Your task to perform on an android device: Show the shopping cart on ebay. Search for "razer kraken" on ebay, select the first entry, and add it to the cart. Image 0: 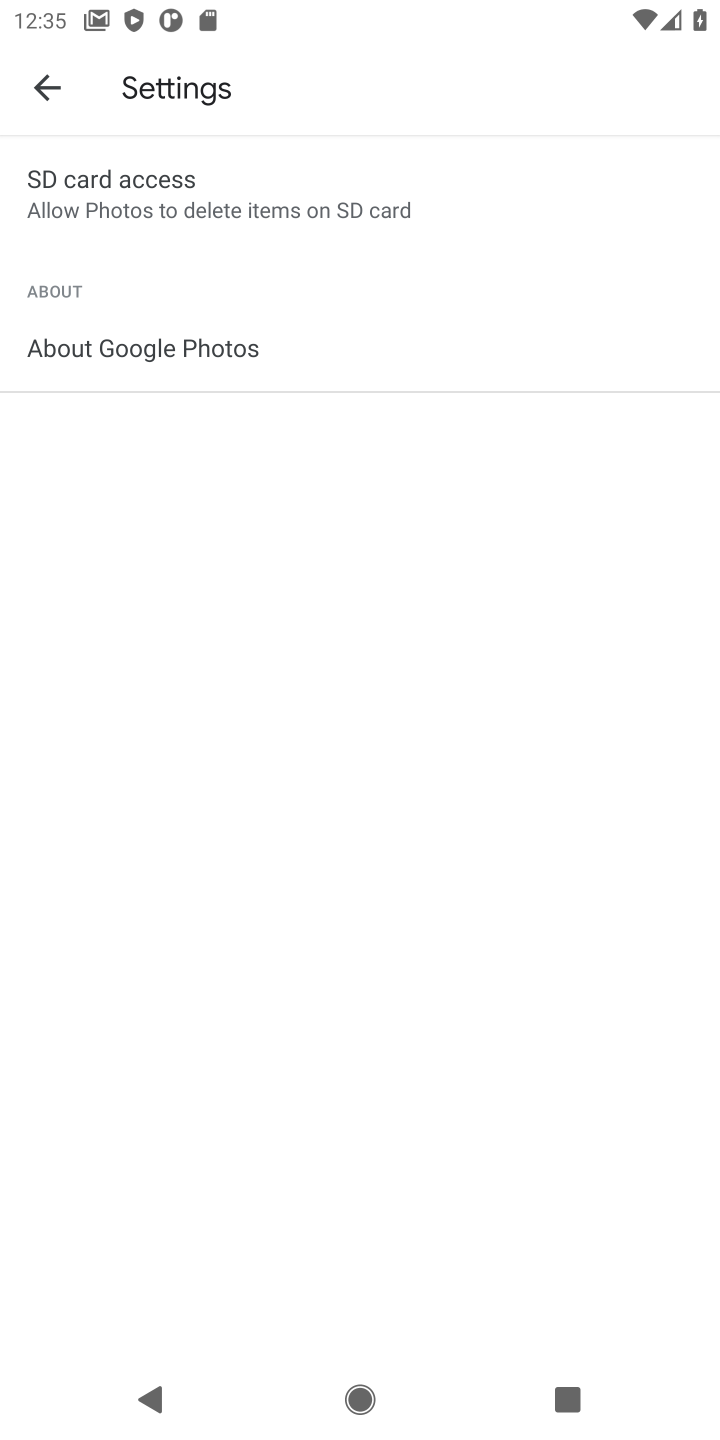
Step 0: press home button
Your task to perform on an android device: Show the shopping cart on ebay. Search for "razer kraken" on ebay, select the first entry, and add it to the cart. Image 1: 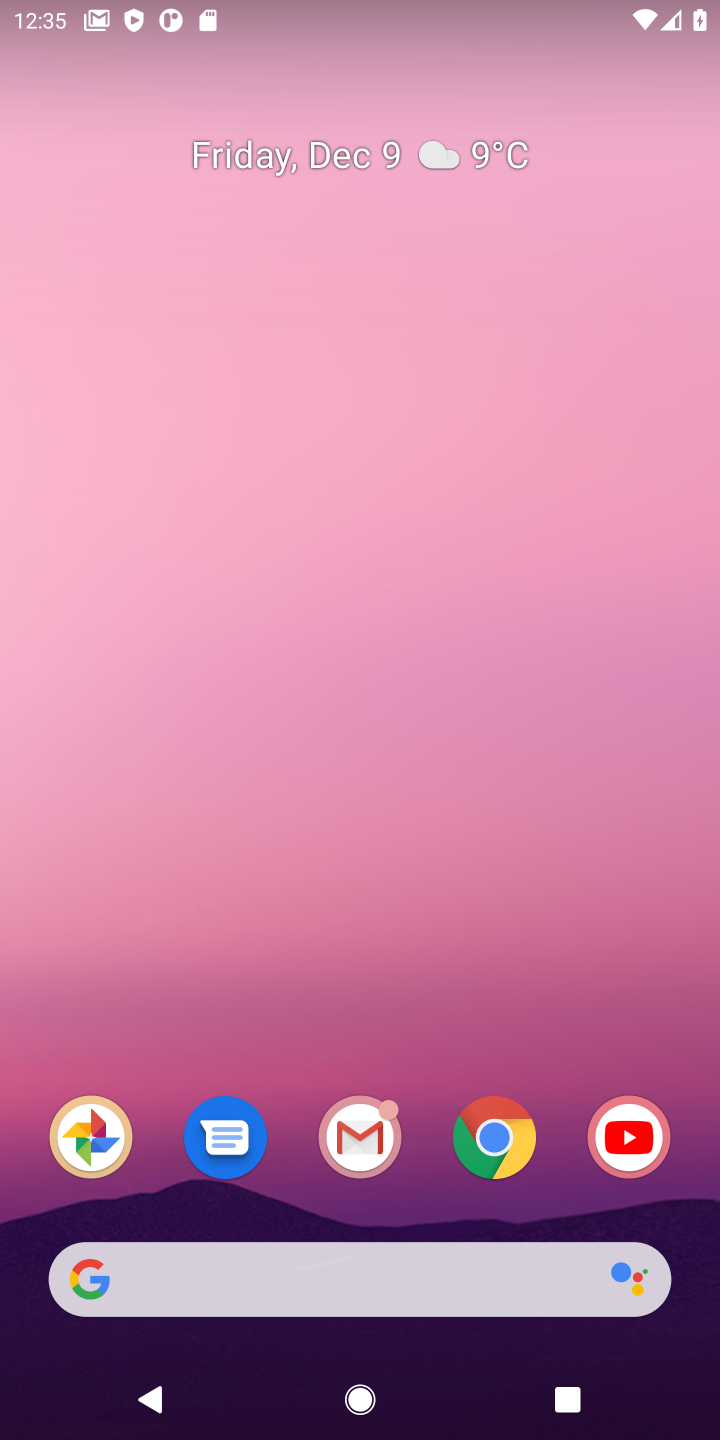
Step 1: click (283, 1283)
Your task to perform on an android device: Show the shopping cart on ebay. Search for "razer kraken" on ebay, select the first entry, and add it to the cart. Image 2: 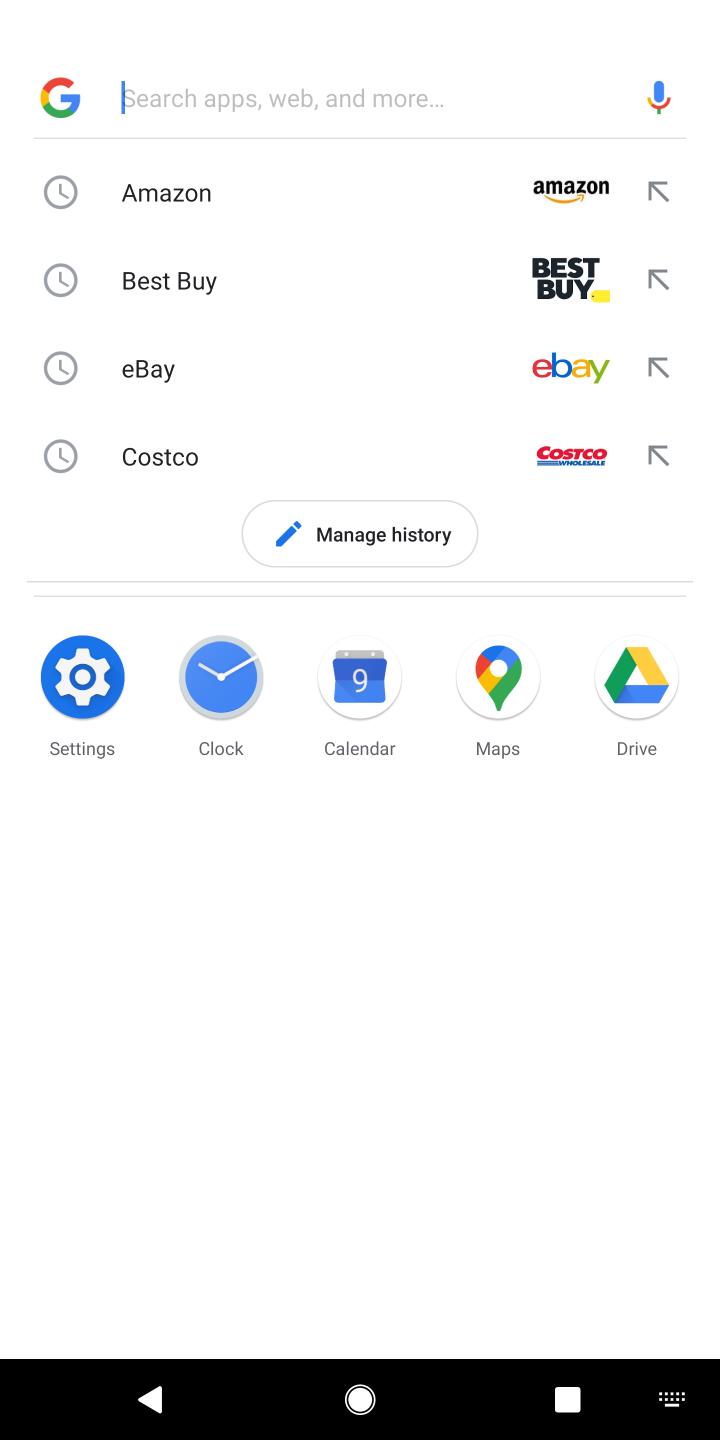
Step 2: type "razer kaeken"
Your task to perform on an android device: Show the shopping cart on ebay. Search for "razer kraken" on ebay, select the first entry, and add it to the cart. Image 3: 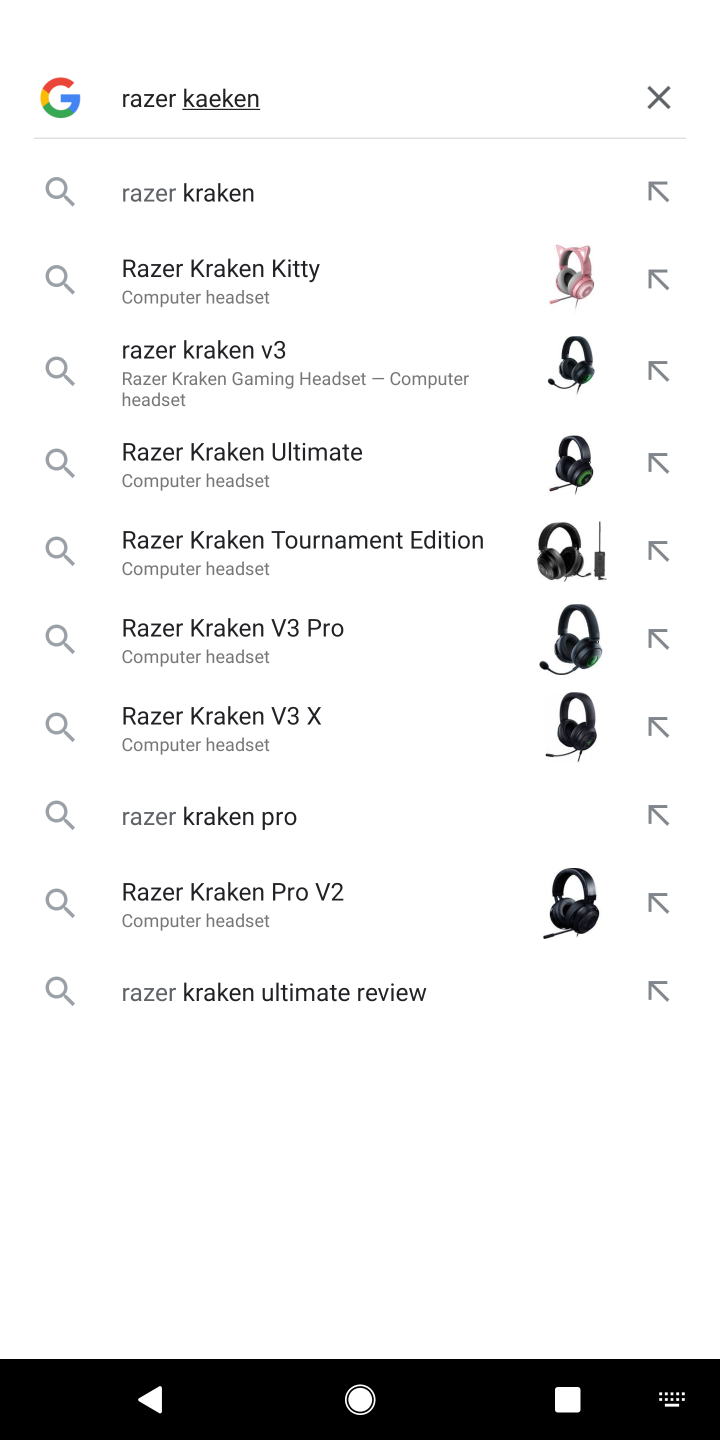
Step 3: click (202, 170)
Your task to perform on an android device: Show the shopping cart on ebay. Search for "razer kraken" on ebay, select the first entry, and add it to the cart. Image 4: 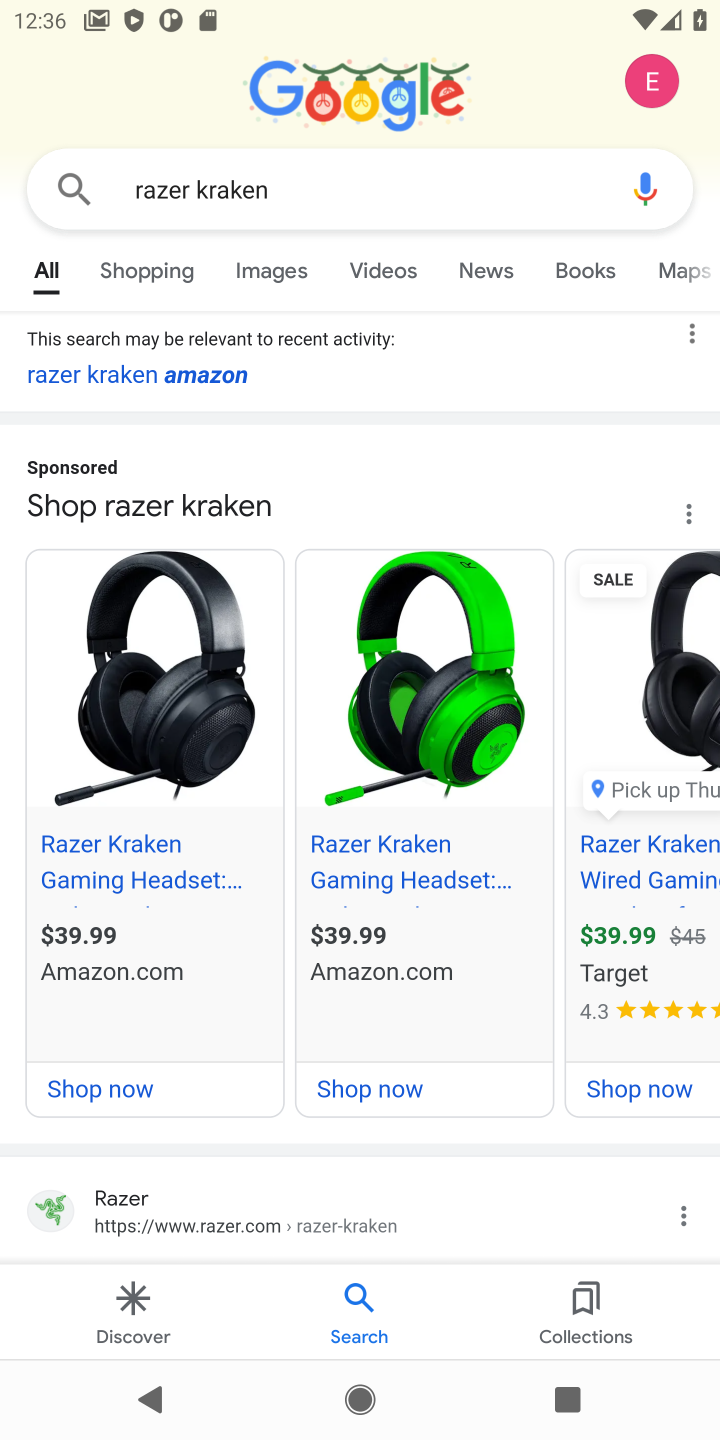
Step 4: click (111, 835)
Your task to perform on an android device: Show the shopping cart on ebay. Search for "razer kraken" on ebay, select the first entry, and add it to the cart. Image 5: 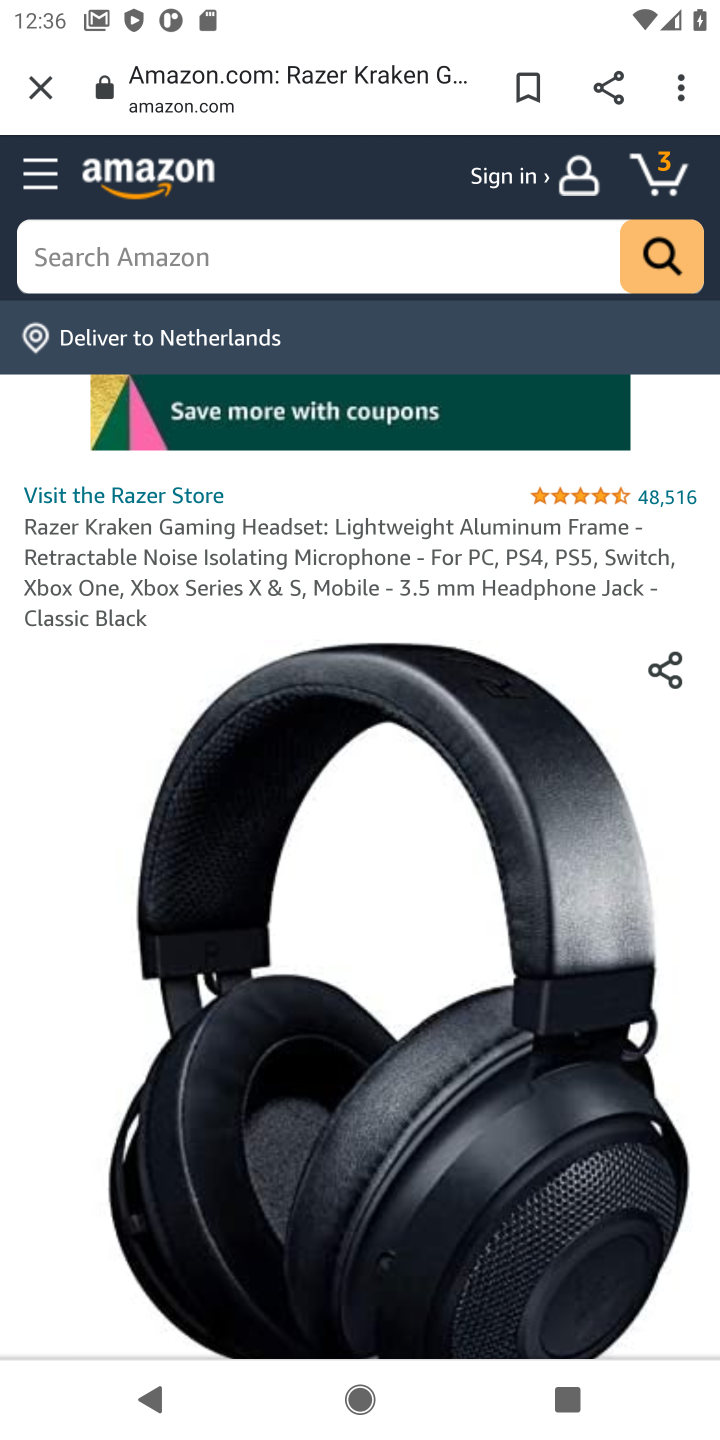
Step 5: click (360, 241)
Your task to perform on an android device: Show the shopping cart on ebay. Search for "razer kraken" on ebay, select the first entry, and add it to the cart. Image 6: 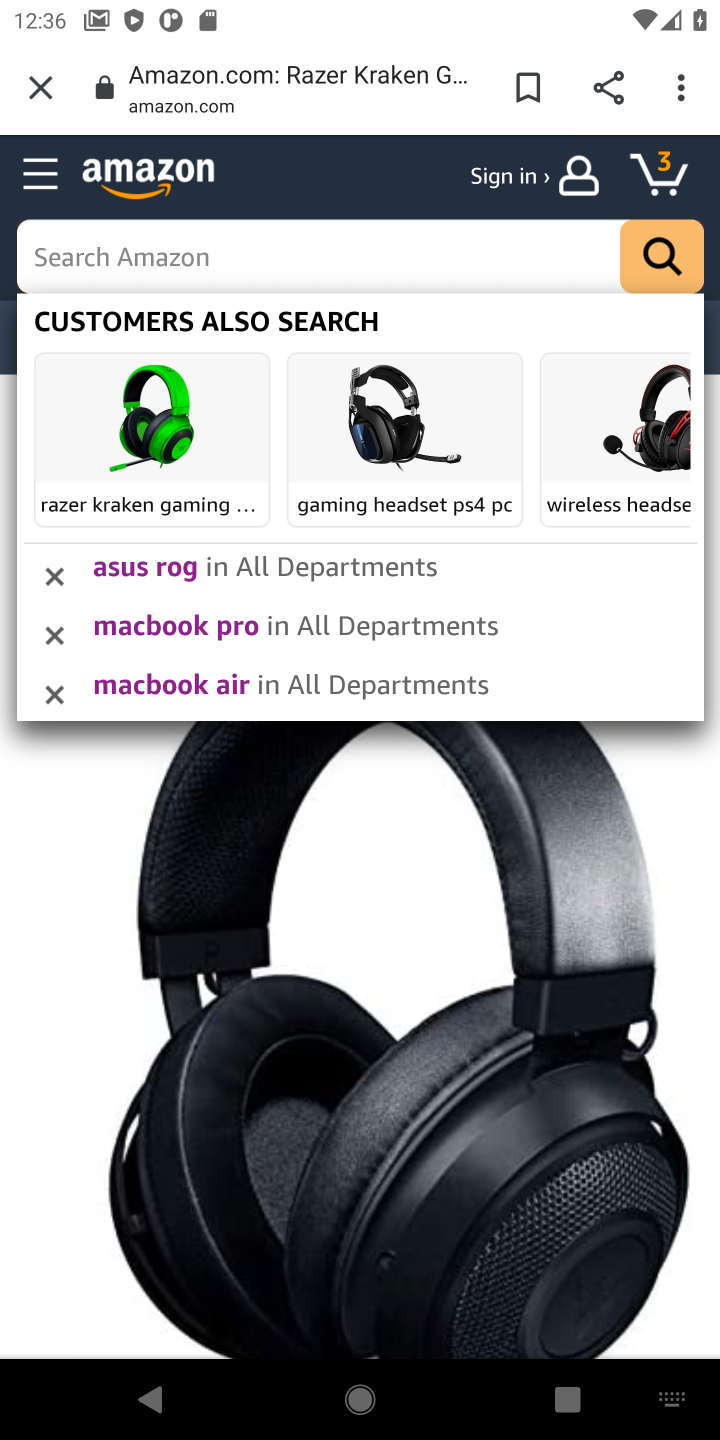
Step 6: type "razer karken"
Your task to perform on an android device: Show the shopping cart on ebay. Search for "razer kraken" on ebay, select the first entry, and add it to the cart. Image 7: 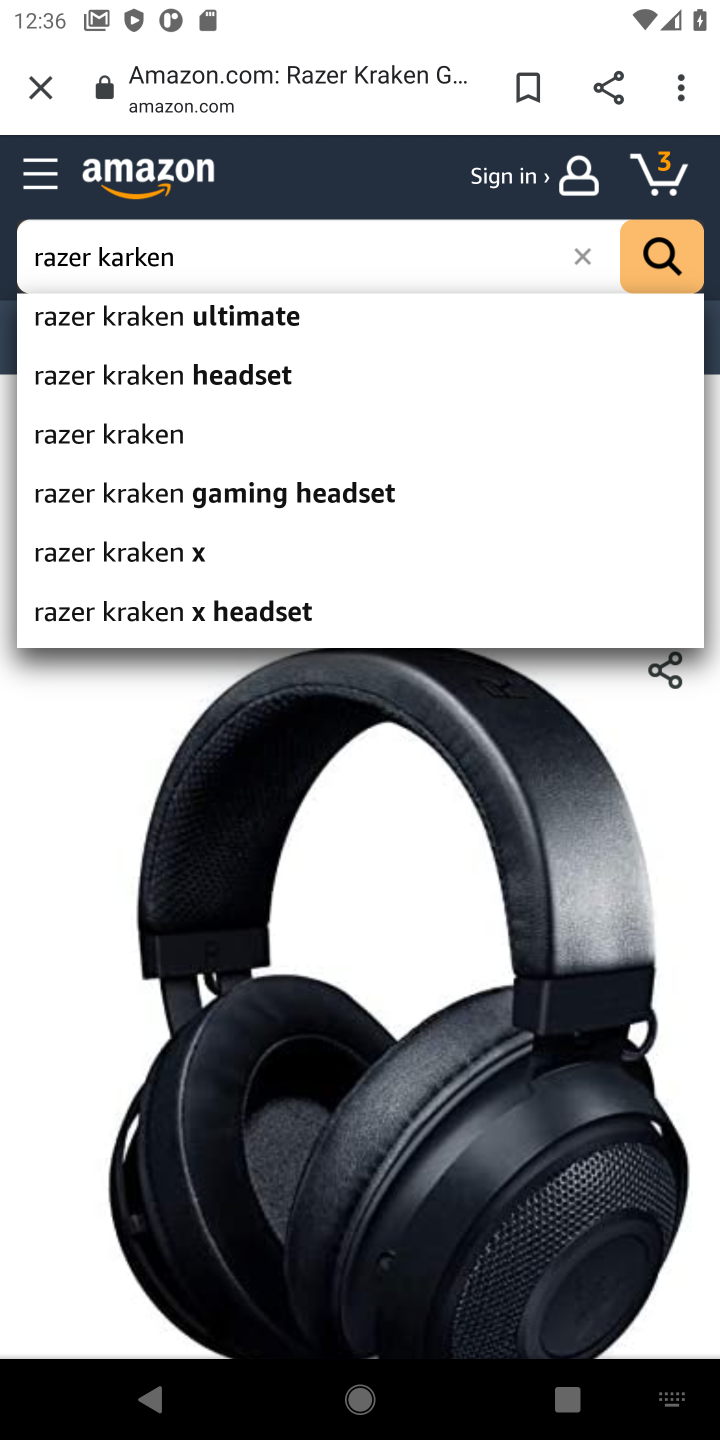
Step 7: click (415, 314)
Your task to perform on an android device: Show the shopping cart on ebay. Search for "razer kraken" on ebay, select the first entry, and add it to the cart. Image 8: 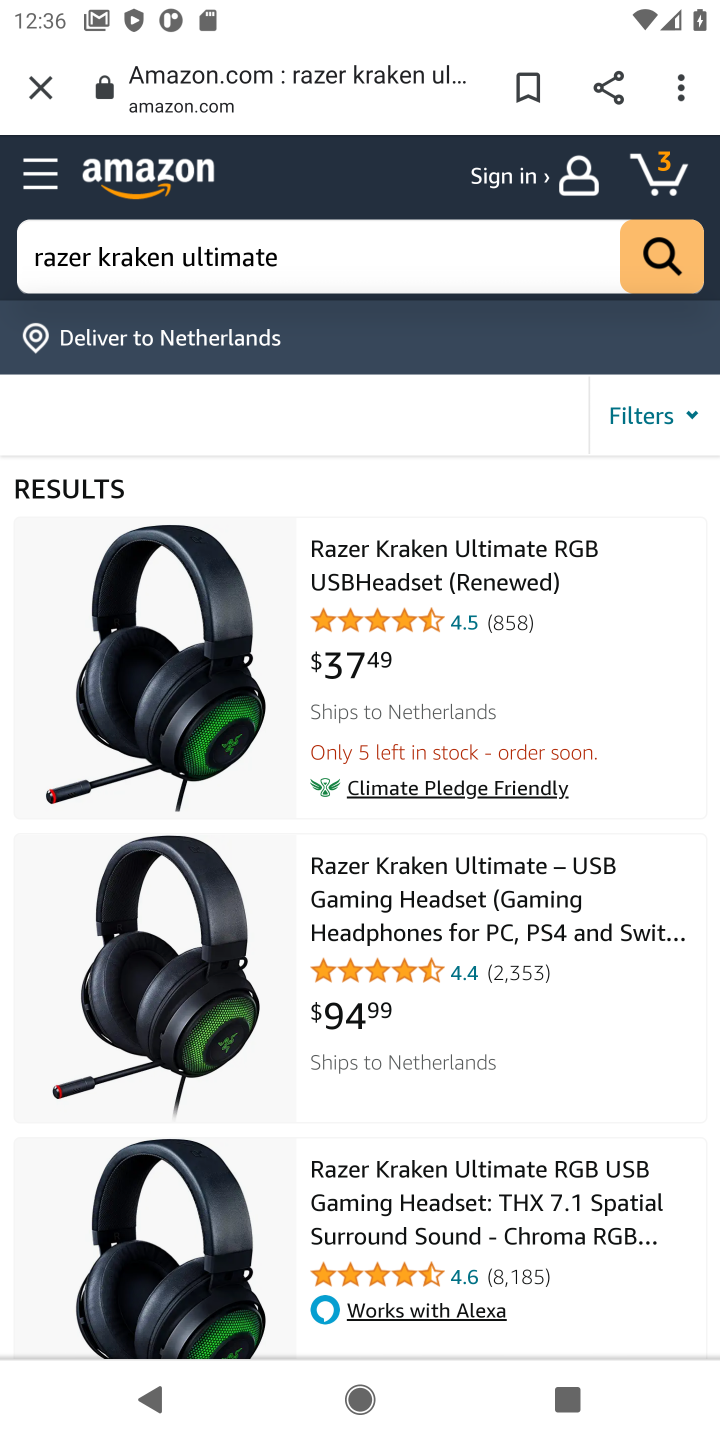
Step 8: click (361, 551)
Your task to perform on an android device: Show the shopping cart on ebay. Search for "razer kraken" on ebay, select the first entry, and add it to the cart. Image 9: 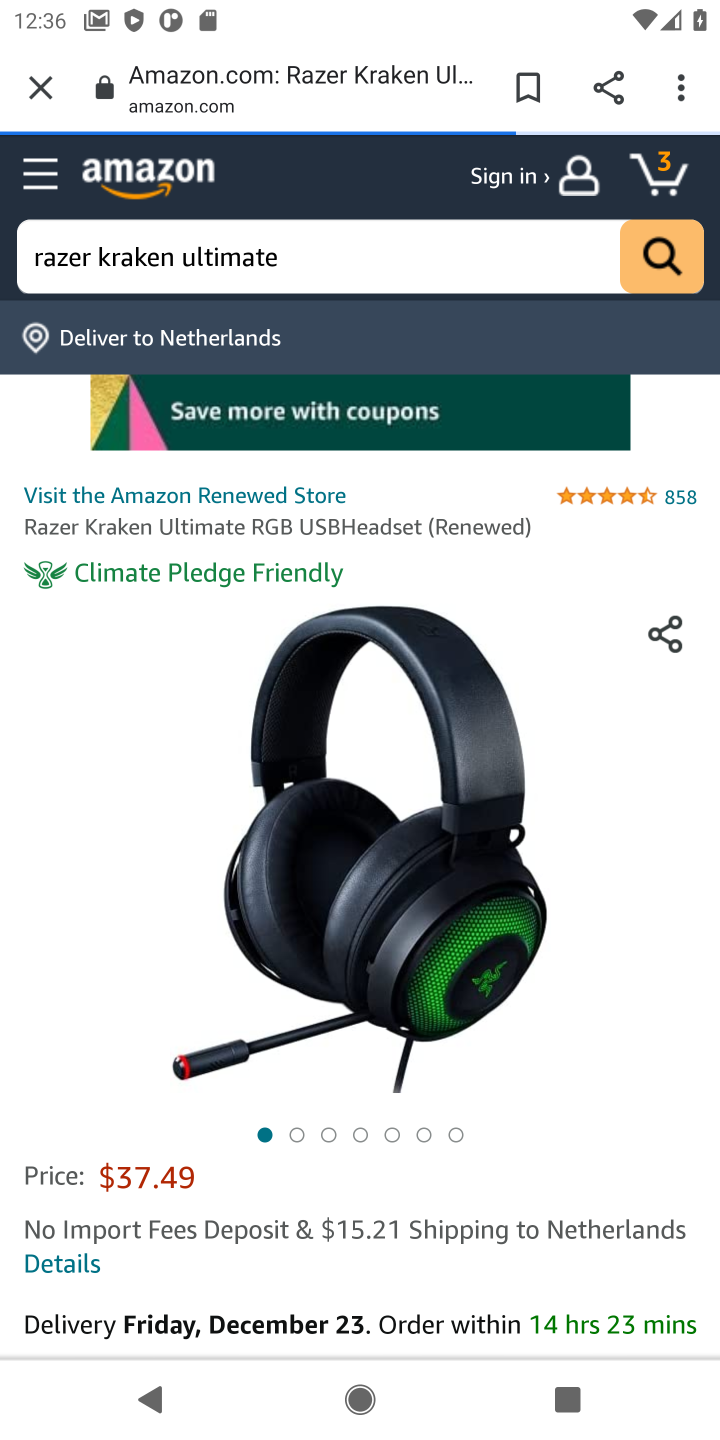
Step 9: drag from (279, 1181) to (142, 83)
Your task to perform on an android device: Show the shopping cart on ebay. Search for "razer kraken" on ebay, select the first entry, and add it to the cart. Image 10: 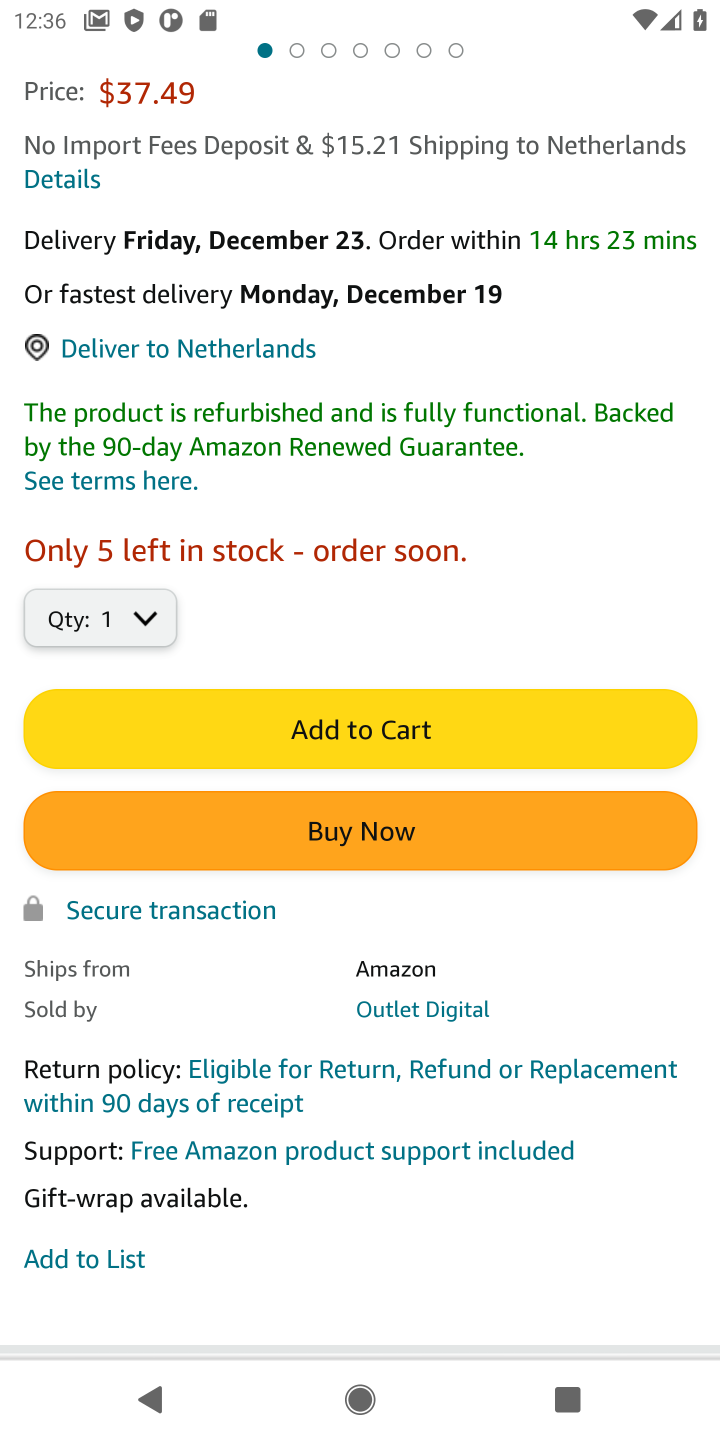
Step 10: click (408, 750)
Your task to perform on an android device: Show the shopping cart on ebay. Search for "razer kraken" on ebay, select the first entry, and add it to the cart. Image 11: 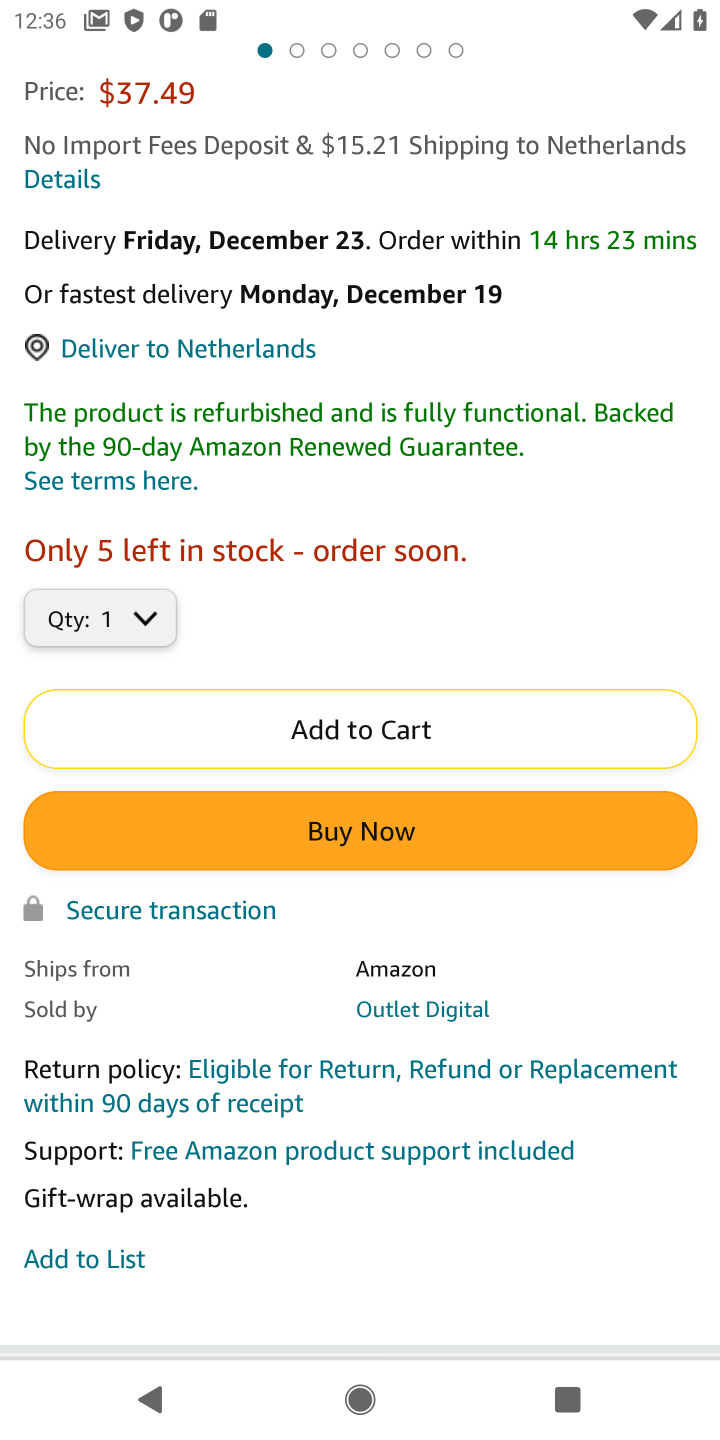
Step 11: task complete